Your task to perform on an android device: Open the map Image 0: 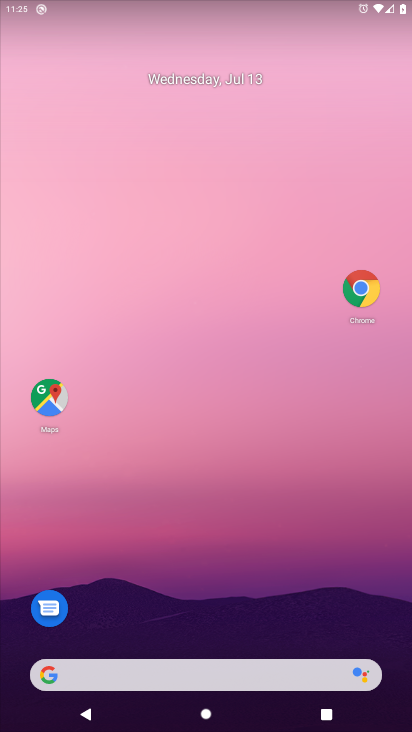
Step 0: click (48, 405)
Your task to perform on an android device: Open the map Image 1: 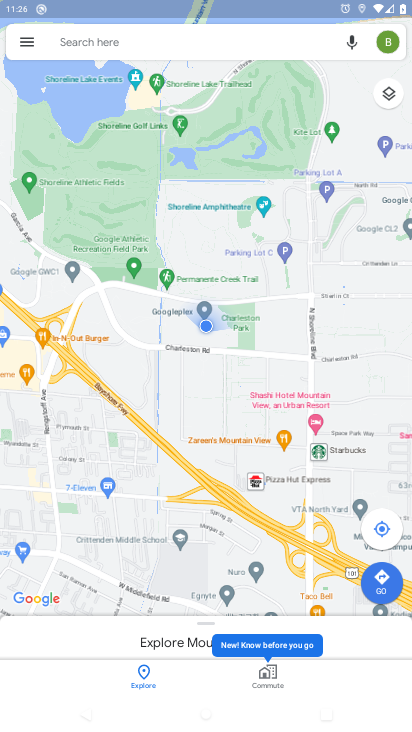
Step 1: task complete